Your task to perform on an android device: Go to display settings Image 0: 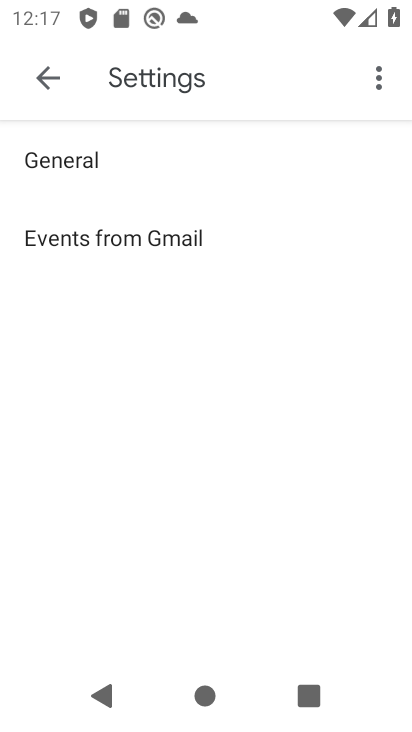
Step 0: press home button
Your task to perform on an android device: Go to display settings Image 1: 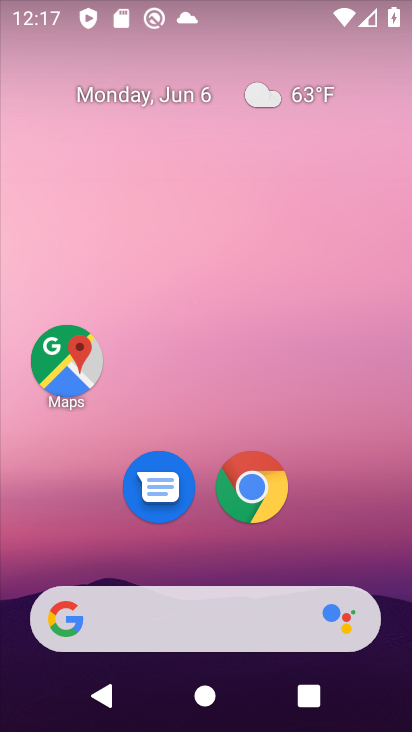
Step 1: drag from (396, 632) to (340, 145)
Your task to perform on an android device: Go to display settings Image 2: 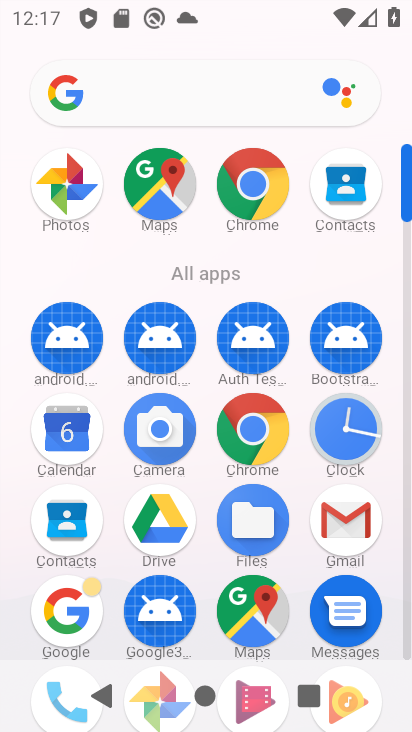
Step 2: click (409, 643)
Your task to perform on an android device: Go to display settings Image 3: 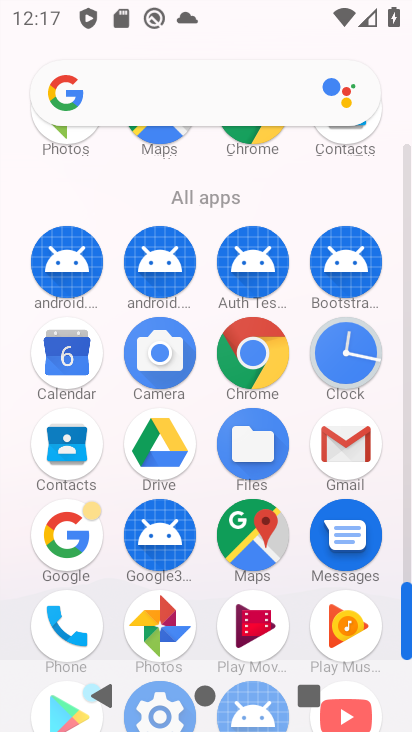
Step 3: click (406, 480)
Your task to perform on an android device: Go to display settings Image 4: 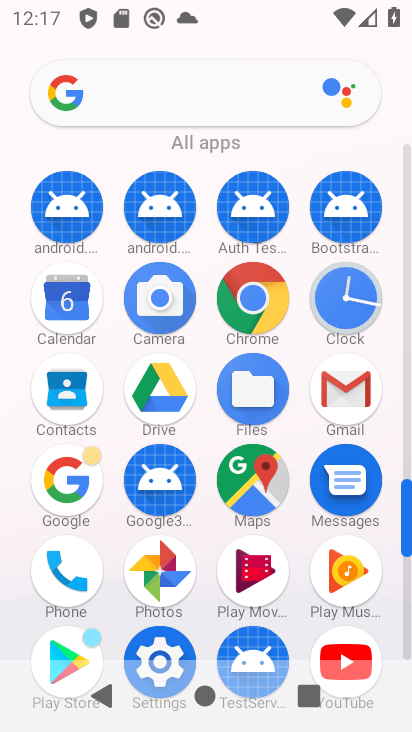
Step 4: click (162, 654)
Your task to perform on an android device: Go to display settings Image 5: 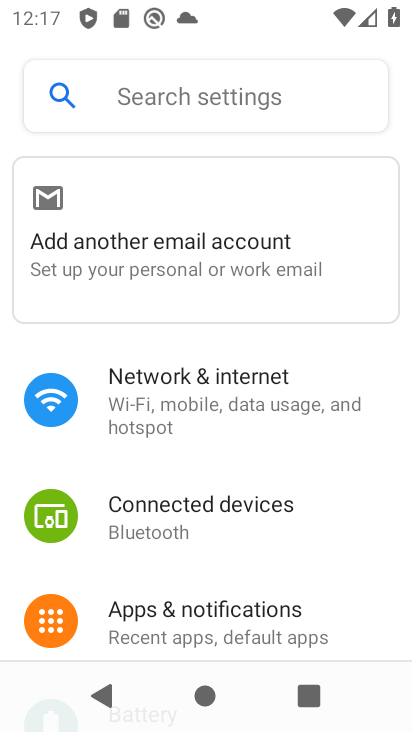
Step 5: drag from (370, 594) to (319, 121)
Your task to perform on an android device: Go to display settings Image 6: 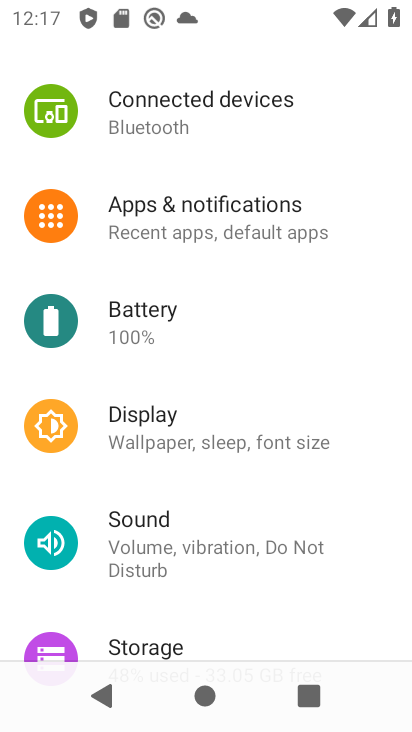
Step 6: click (120, 416)
Your task to perform on an android device: Go to display settings Image 7: 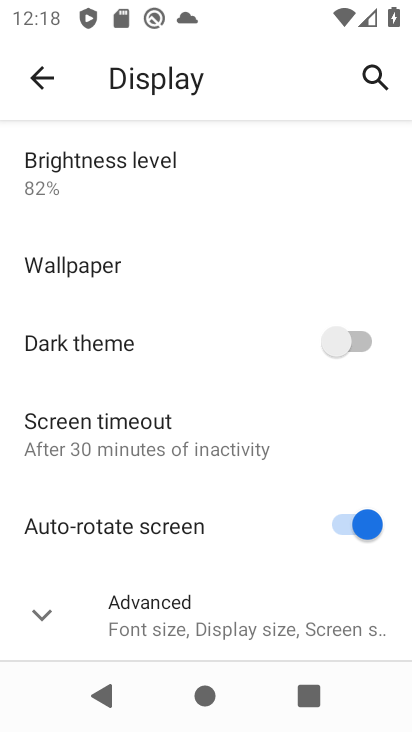
Step 7: click (46, 613)
Your task to perform on an android device: Go to display settings Image 8: 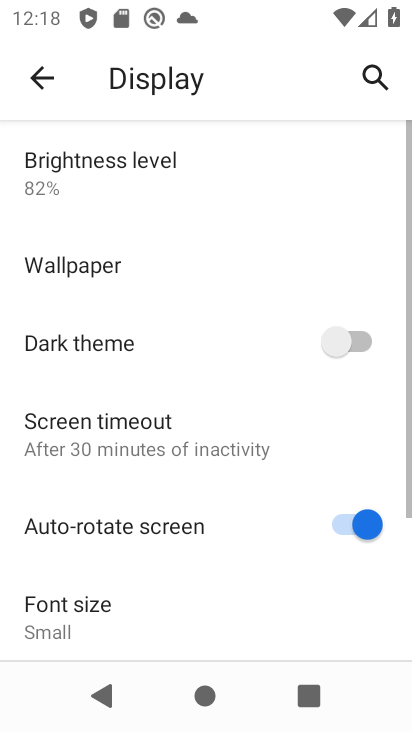
Step 8: task complete